Your task to perform on an android device: move an email to a new category in the gmail app Image 0: 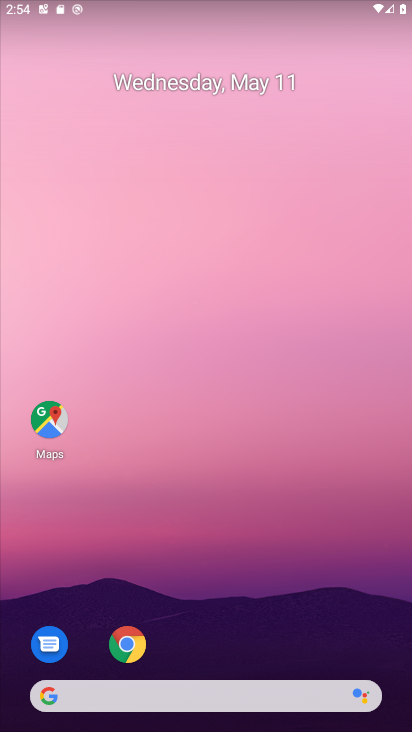
Step 0: drag from (188, 687) to (188, 34)
Your task to perform on an android device: move an email to a new category in the gmail app Image 1: 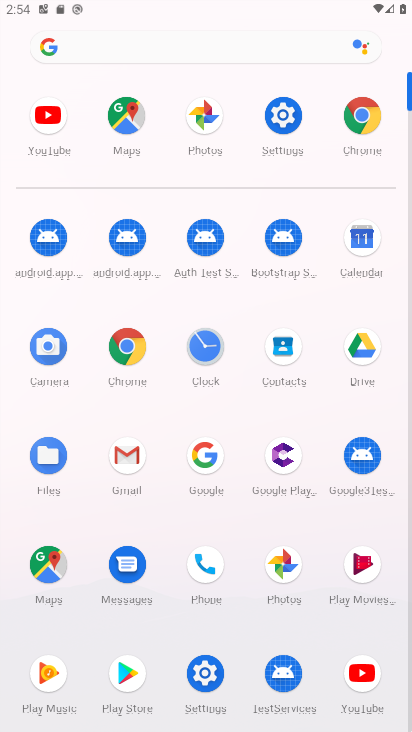
Step 1: click (118, 461)
Your task to perform on an android device: move an email to a new category in the gmail app Image 2: 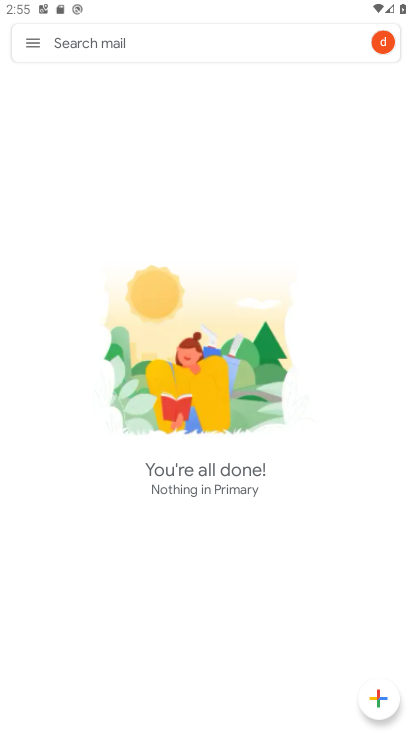
Step 2: task complete